Your task to perform on an android device: Open display settings Image 0: 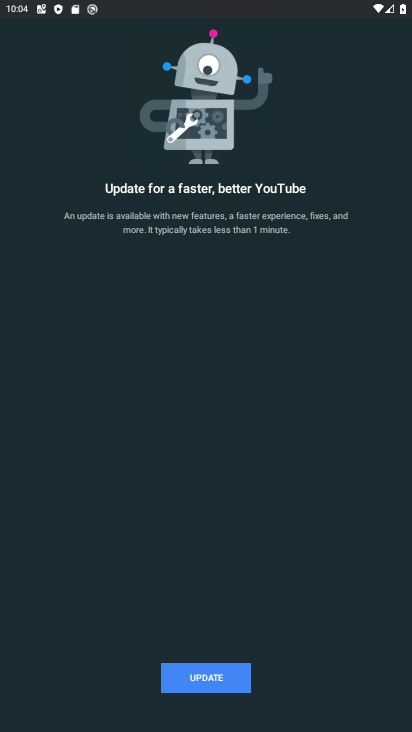
Step 0: press back button
Your task to perform on an android device: Open display settings Image 1: 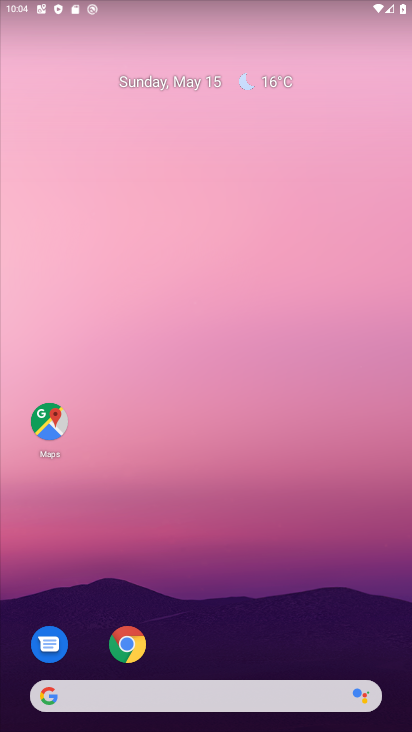
Step 1: drag from (244, 658) to (257, 135)
Your task to perform on an android device: Open display settings Image 2: 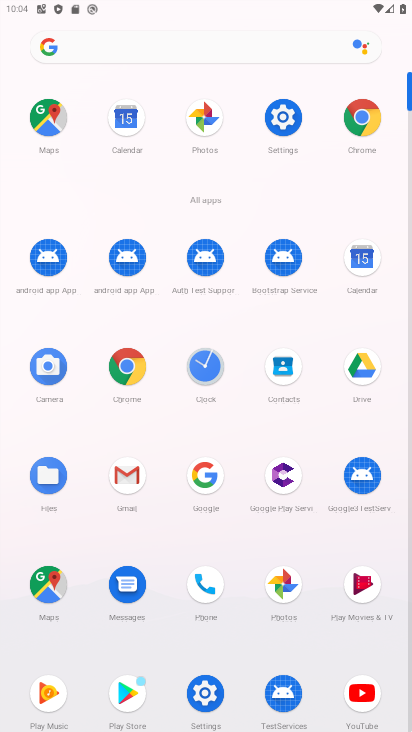
Step 2: click (281, 123)
Your task to perform on an android device: Open display settings Image 3: 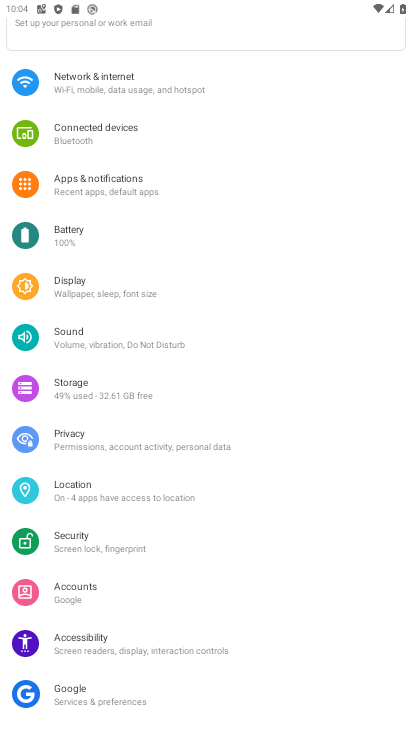
Step 3: click (76, 281)
Your task to perform on an android device: Open display settings Image 4: 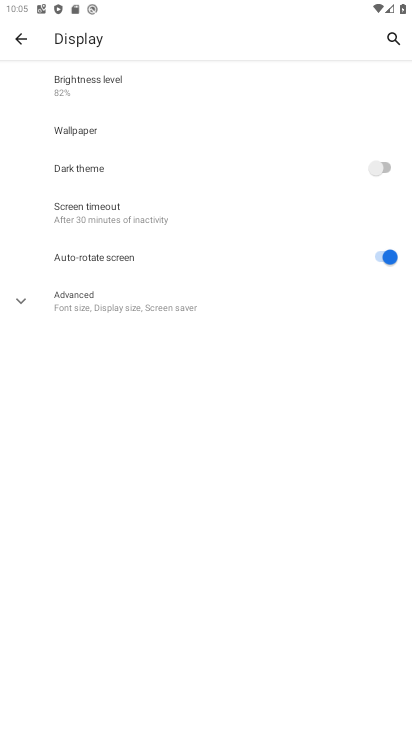
Step 4: task complete